Your task to perform on an android device: Open eBay Image 0: 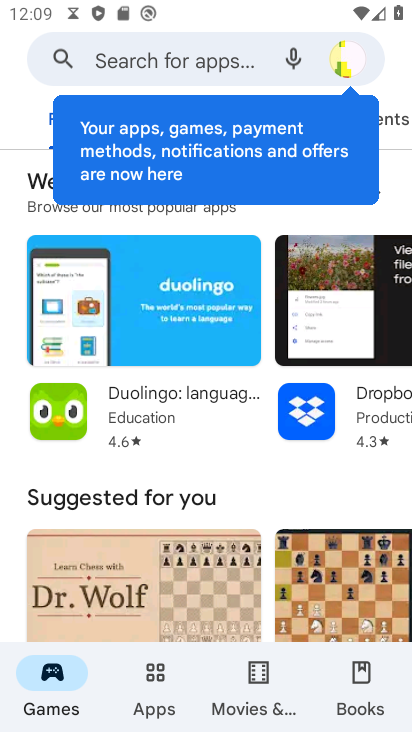
Step 0: press back button
Your task to perform on an android device: Open eBay Image 1: 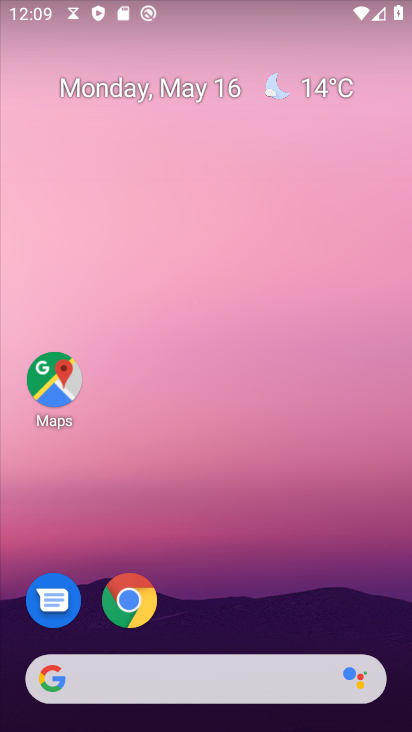
Step 1: drag from (296, 510) to (265, 60)
Your task to perform on an android device: Open eBay Image 2: 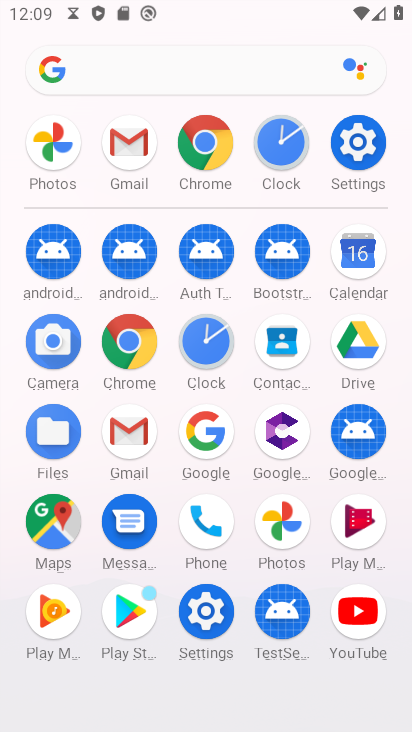
Step 2: click (130, 338)
Your task to perform on an android device: Open eBay Image 3: 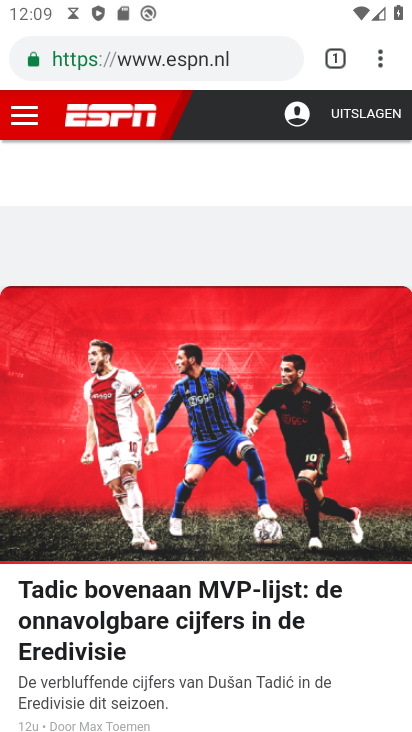
Step 3: click (184, 61)
Your task to perform on an android device: Open eBay Image 4: 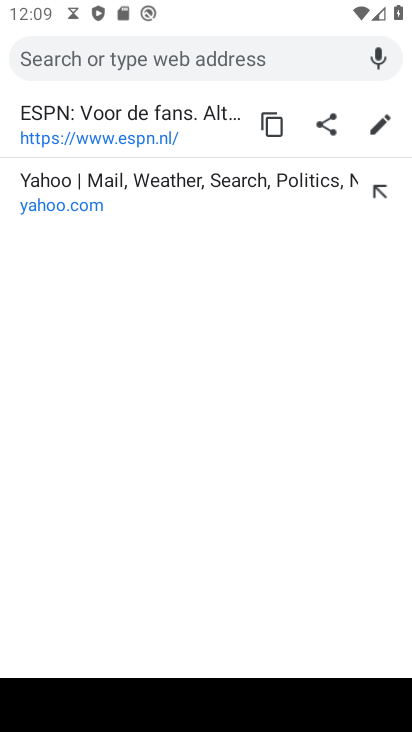
Step 4: type "ebay"
Your task to perform on an android device: Open eBay Image 5: 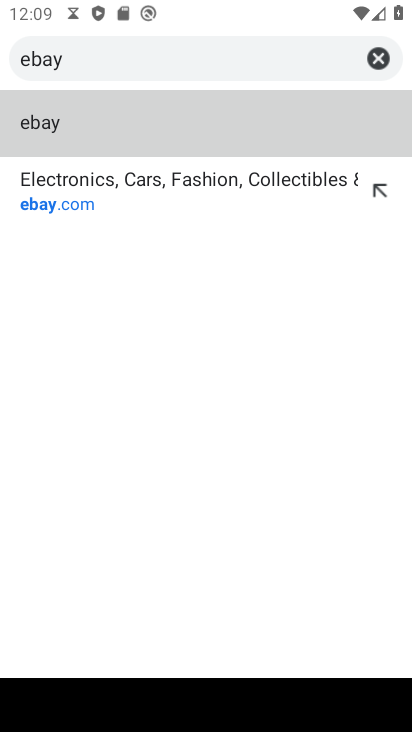
Step 5: click (123, 177)
Your task to perform on an android device: Open eBay Image 6: 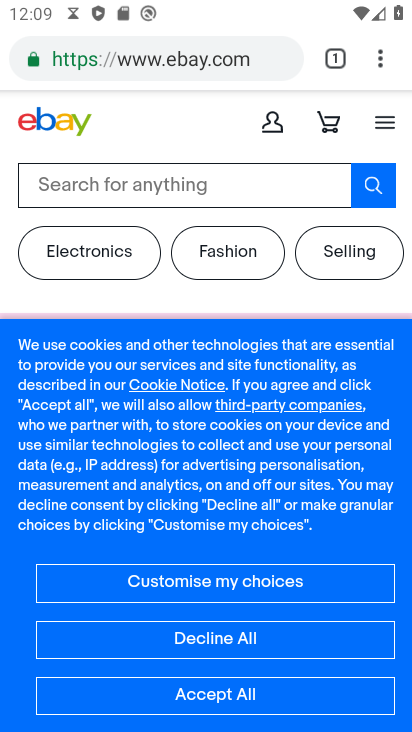
Step 6: task complete